Your task to perform on an android device: Open Google Maps Image 0: 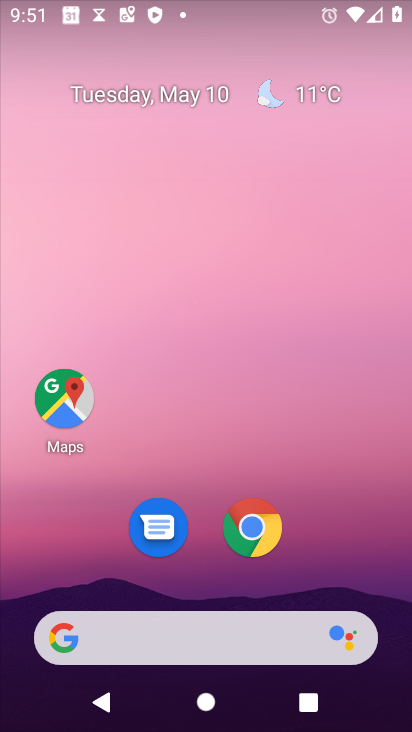
Step 0: click (69, 397)
Your task to perform on an android device: Open Google Maps Image 1: 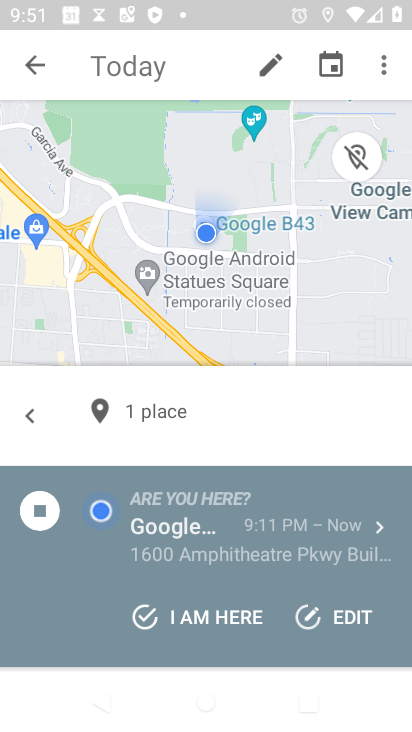
Step 1: click (34, 71)
Your task to perform on an android device: Open Google Maps Image 2: 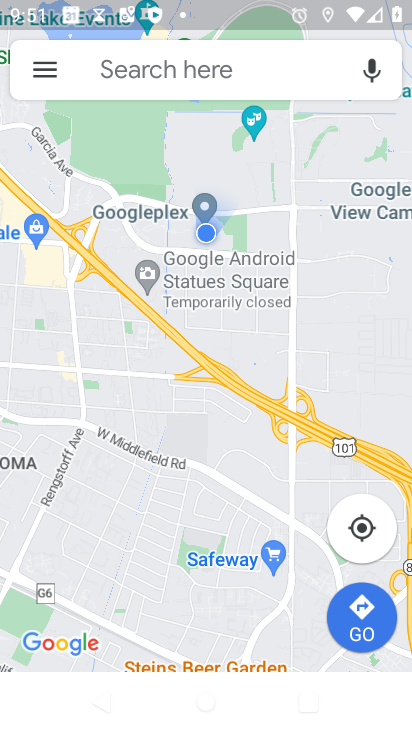
Step 2: task complete